Your task to perform on an android device: toggle pop-ups in chrome Image 0: 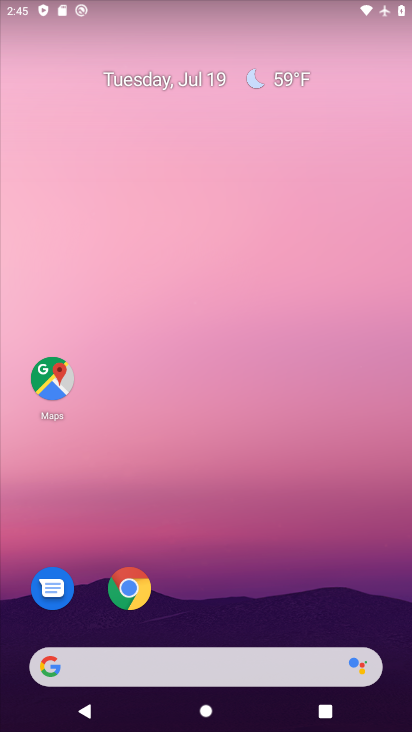
Step 0: drag from (262, 589) to (258, 40)
Your task to perform on an android device: toggle pop-ups in chrome Image 1: 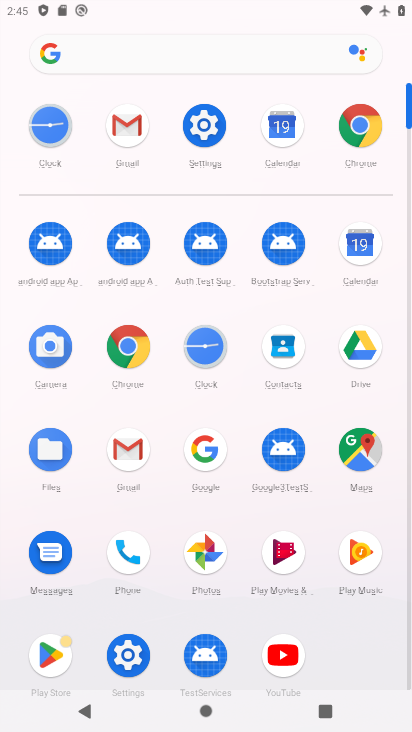
Step 1: click (355, 123)
Your task to perform on an android device: toggle pop-ups in chrome Image 2: 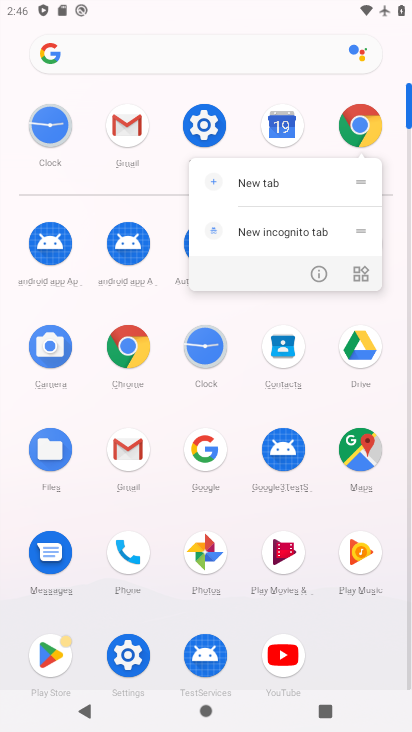
Step 2: click (370, 130)
Your task to perform on an android device: toggle pop-ups in chrome Image 3: 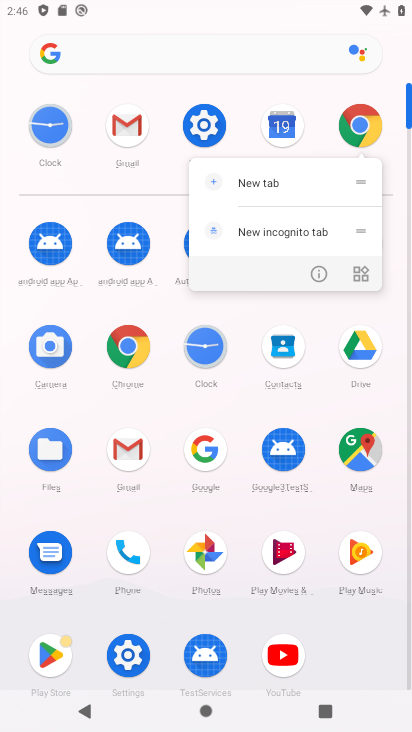
Step 3: click (370, 130)
Your task to perform on an android device: toggle pop-ups in chrome Image 4: 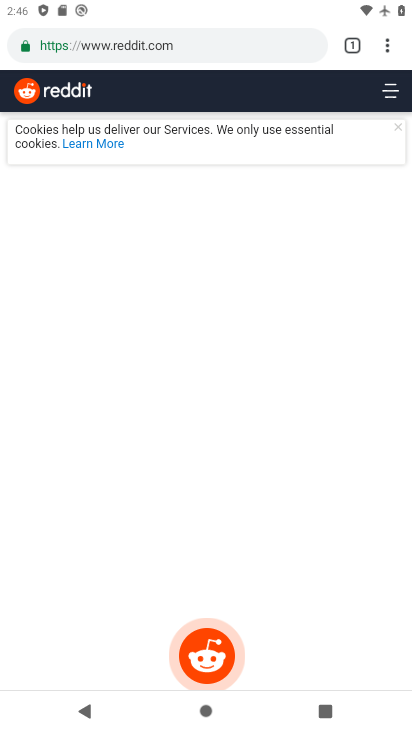
Step 4: drag from (390, 56) to (231, 509)
Your task to perform on an android device: toggle pop-ups in chrome Image 5: 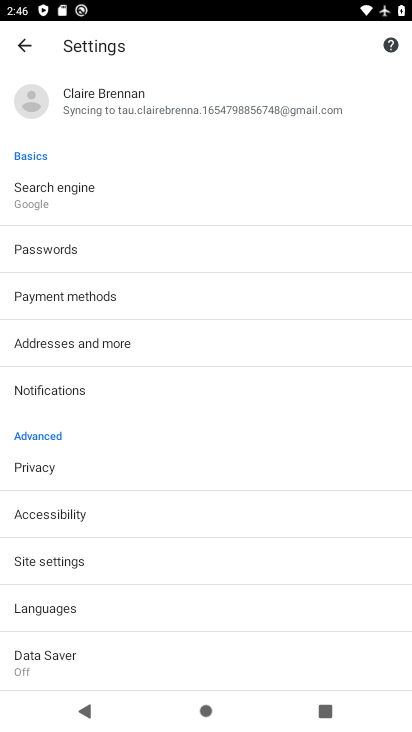
Step 5: click (54, 563)
Your task to perform on an android device: toggle pop-ups in chrome Image 6: 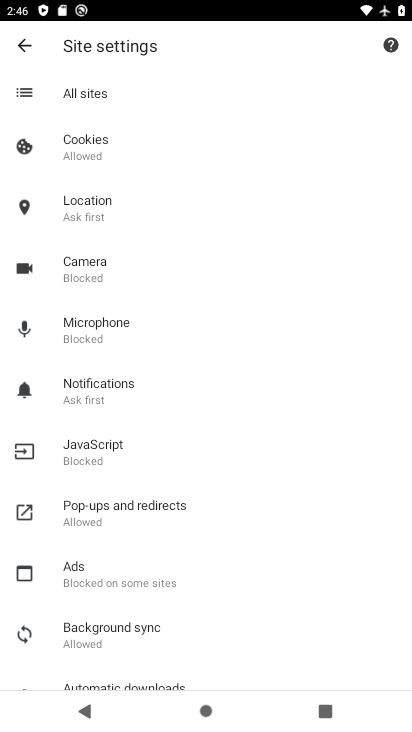
Step 6: click (119, 515)
Your task to perform on an android device: toggle pop-ups in chrome Image 7: 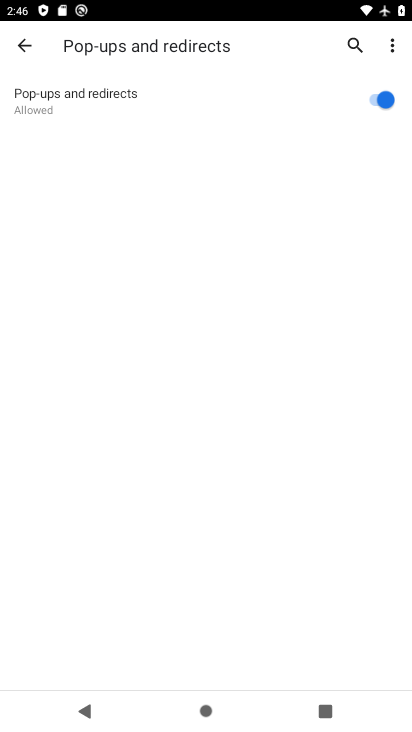
Step 7: click (392, 101)
Your task to perform on an android device: toggle pop-ups in chrome Image 8: 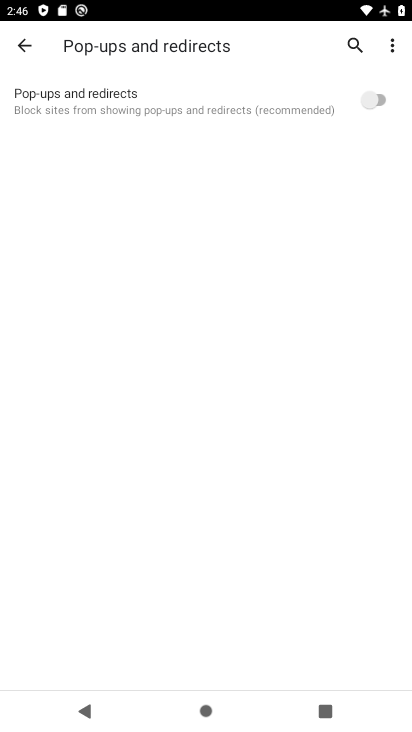
Step 8: task complete